Your task to perform on an android device: change text size in settings app Image 0: 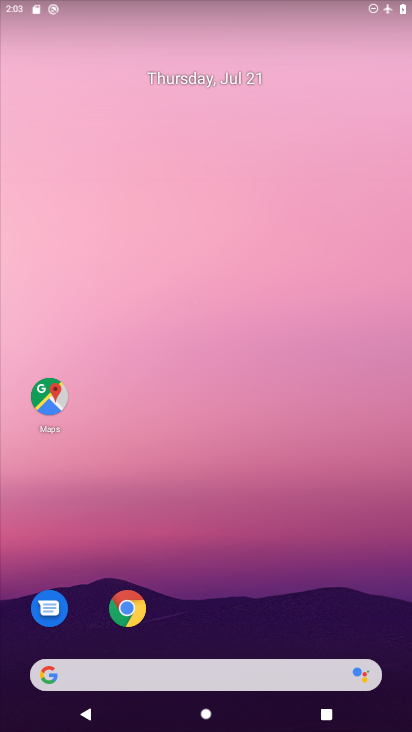
Step 0: drag from (238, 714) to (231, 197)
Your task to perform on an android device: change text size in settings app Image 1: 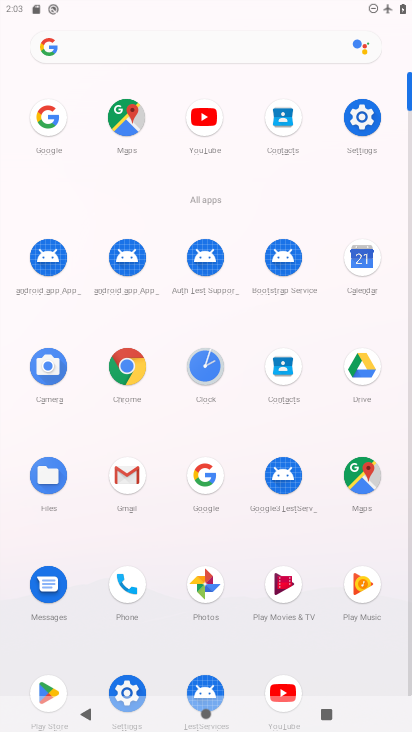
Step 1: click (358, 105)
Your task to perform on an android device: change text size in settings app Image 2: 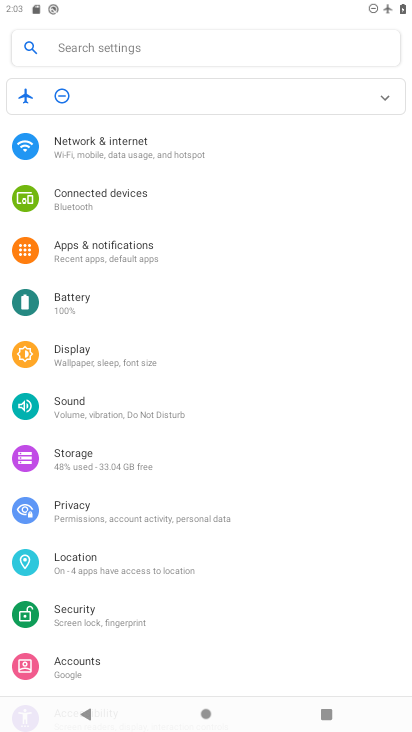
Step 2: click (97, 366)
Your task to perform on an android device: change text size in settings app Image 3: 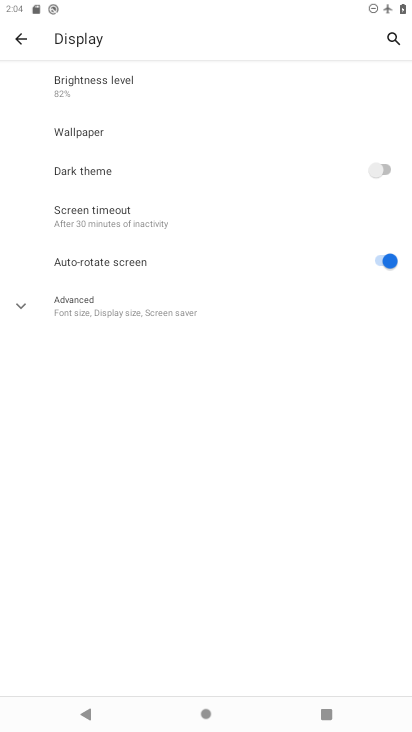
Step 3: click (157, 312)
Your task to perform on an android device: change text size in settings app Image 4: 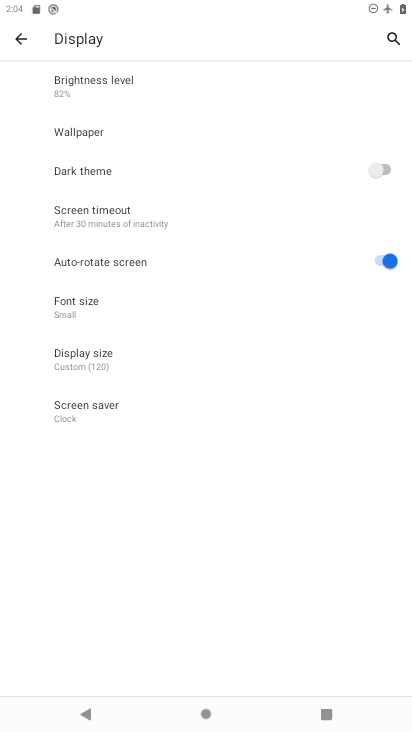
Step 4: click (79, 305)
Your task to perform on an android device: change text size in settings app Image 5: 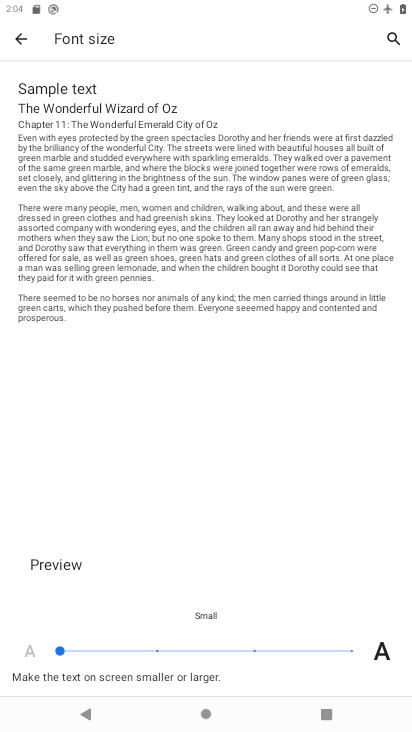
Step 5: click (355, 647)
Your task to perform on an android device: change text size in settings app Image 6: 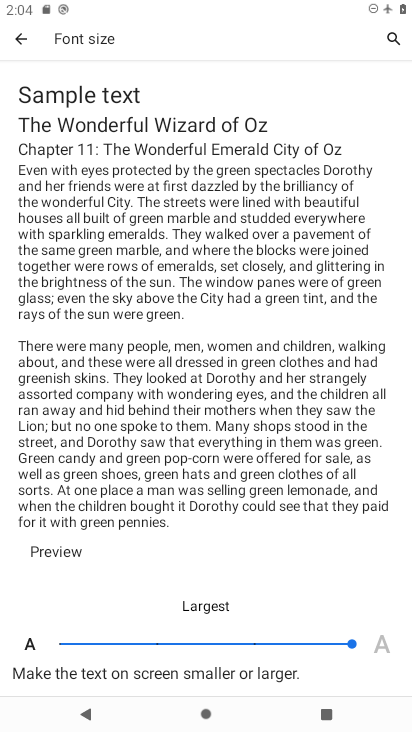
Step 6: task complete